Your task to perform on an android device: Open the stopwatch Image 0: 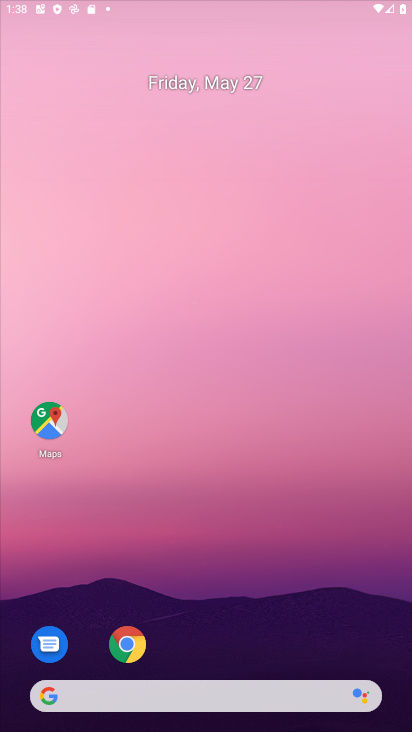
Step 0: drag from (300, 656) to (170, 10)
Your task to perform on an android device: Open the stopwatch Image 1: 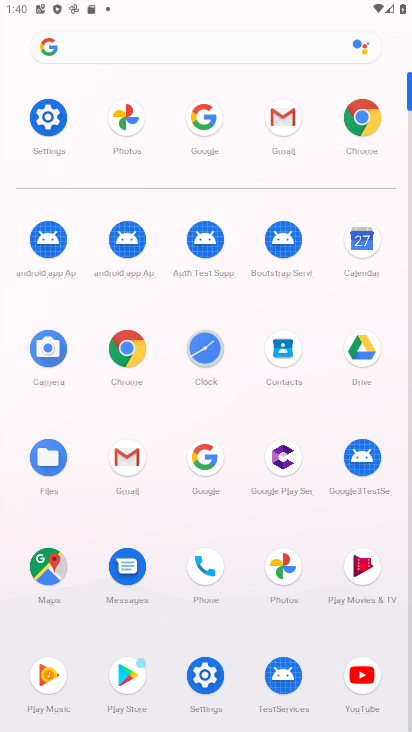
Step 1: click (189, 356)
Your task to perform on an android device: Open the stopwatch Image 2: 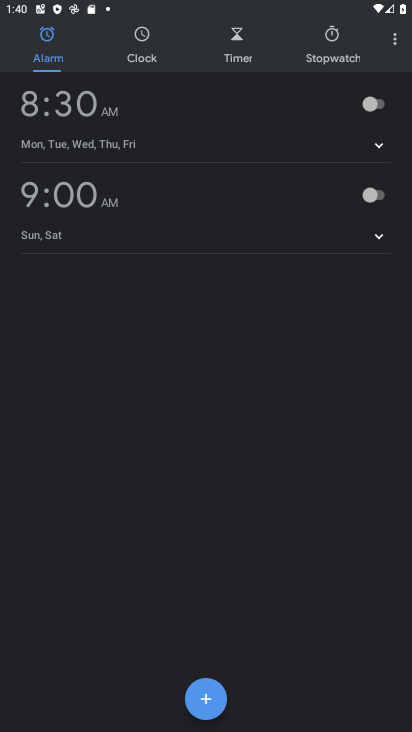
Step 2: click (326, 47)
Your task to perform on an android device: Open the stopwatch Image 3: 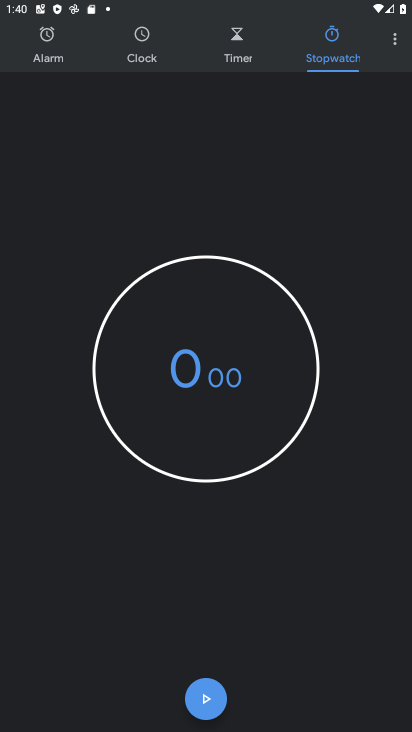
Step 3: task complete